Your task to perform on an android device: Is it going to rain today? Image 0: 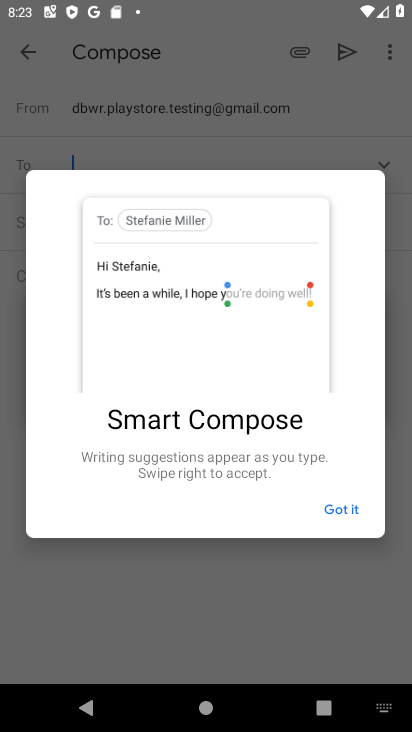
Step 0: press home button
Your task to perform on an android device: Is it going to rain today? Image 1: 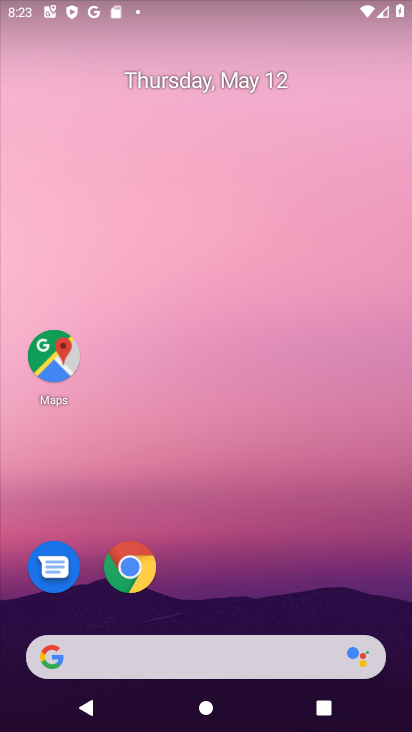
Step 1: drag from (287, 630) to (293, 240)
Your task to perform on an android device: Is it going to rain today? Image 2: 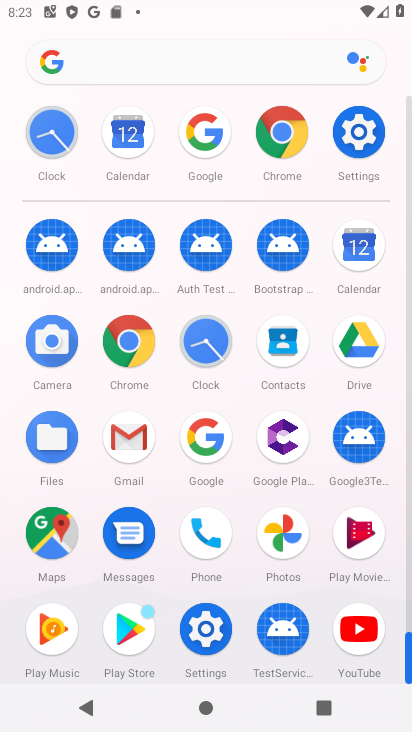
Step 2: click (222, 463)
Your task to perform on an android device: Is it going to rain today? Image 3: 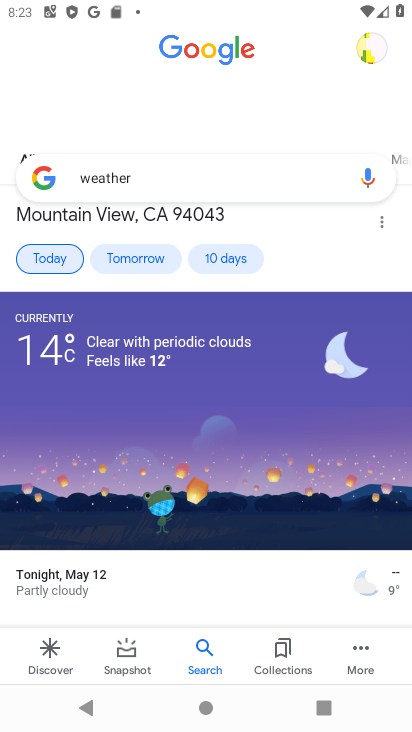
Step 3: task complete